Your task to perform on an android device: Open calendar and show me the first week of next month Image 0: 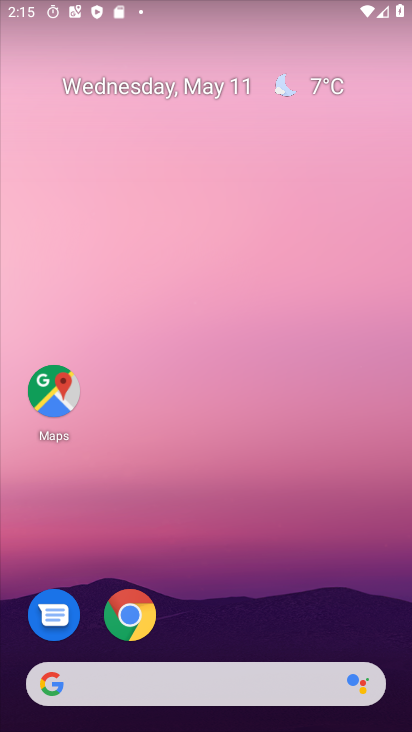
Step 0: drag from (214, 686) to (244, 126)
Your task to perform on an android device: Open calendar and show me the first week of next month Image 1: 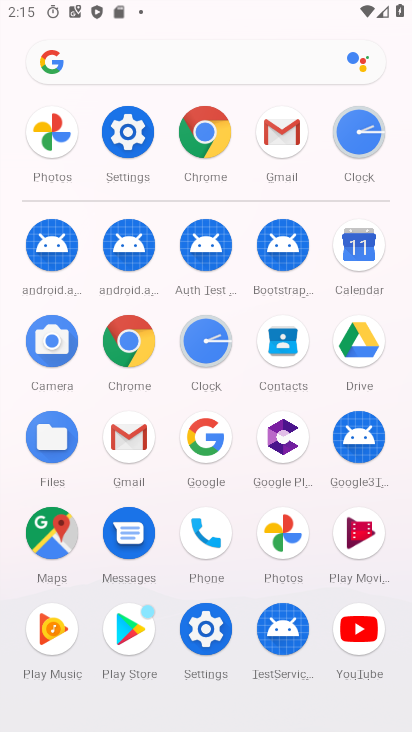
Step 1: click (353, 242)
Your task to perform on an android device: Open calendar and show me the first week of next month Image 2: 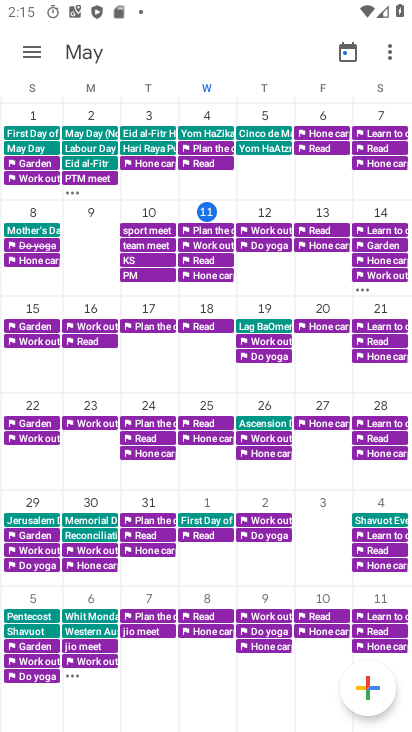
Step 2: task complete